Your task to perform on an android device: see creations saved in the google photos Image 0: 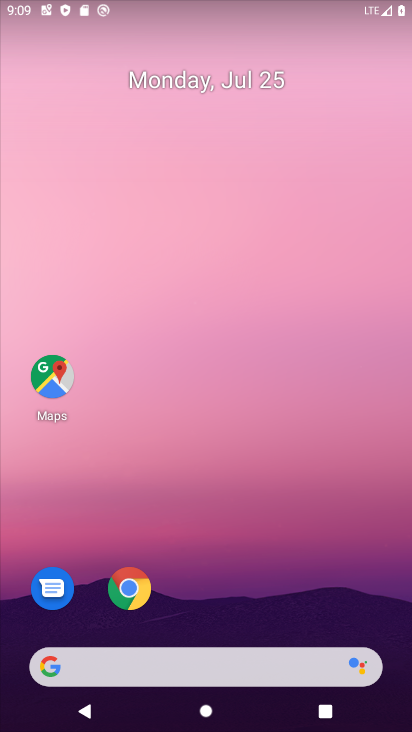
Step 0: drag from (246, 668) to (249, 188)
Your task to perform on an android device: see creations saved in the google photos Image 1: 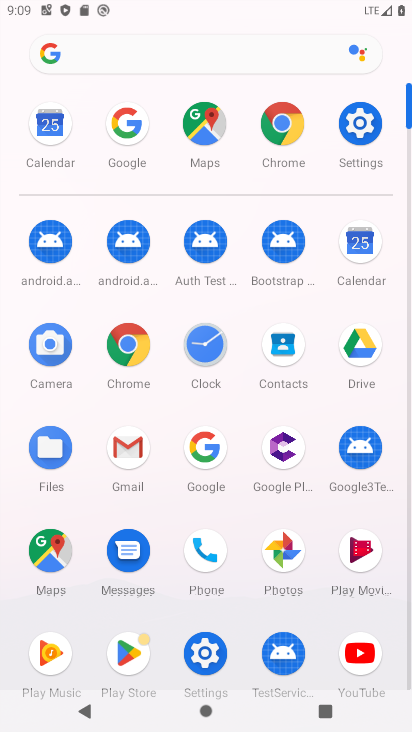
Step 1: click (295, 538)
Your task to perform on an android device: see creations saved in the google photos Image 2: 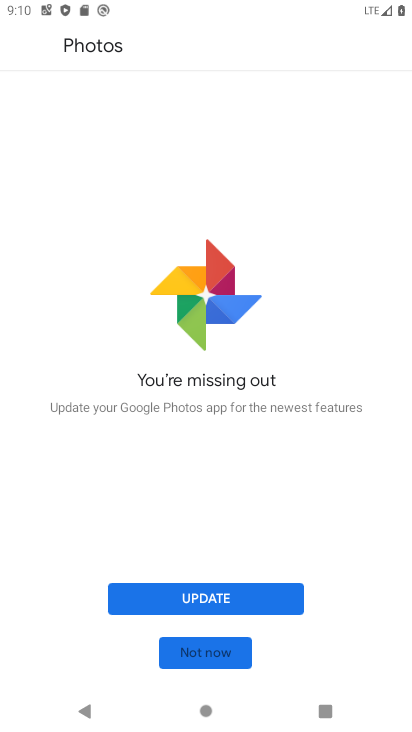
Step 2: click (196, 646)
Your task to perform on an android device: see creations saved in the google photos Image 3: 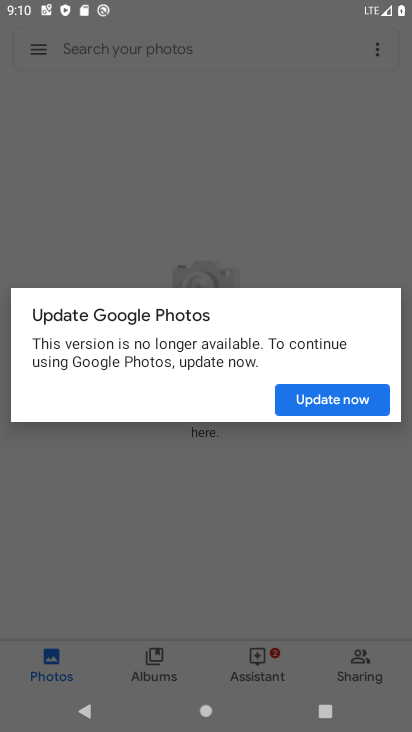
Step 3: click (333, 408)
Your task to perform on an android device: see creations saved in the google photos Image 4: 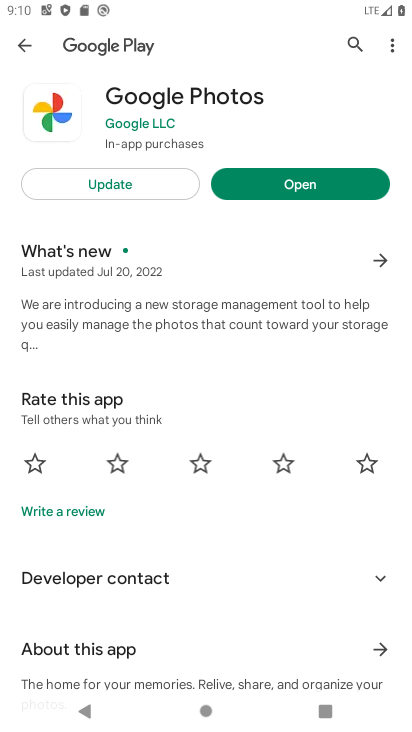
Step 4: click (99, 191)
Your task to perform on an android device: see creations saved in the google photos Image 5: 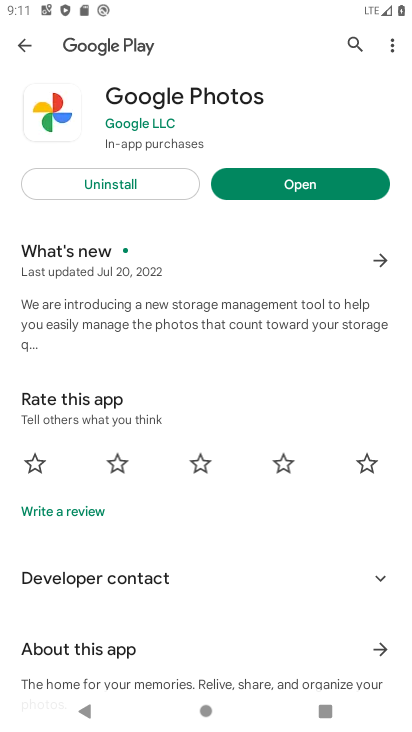
Step 5: click (263, 182)
Your task to perform on an android device: see creations saved in the google photos Image 6: 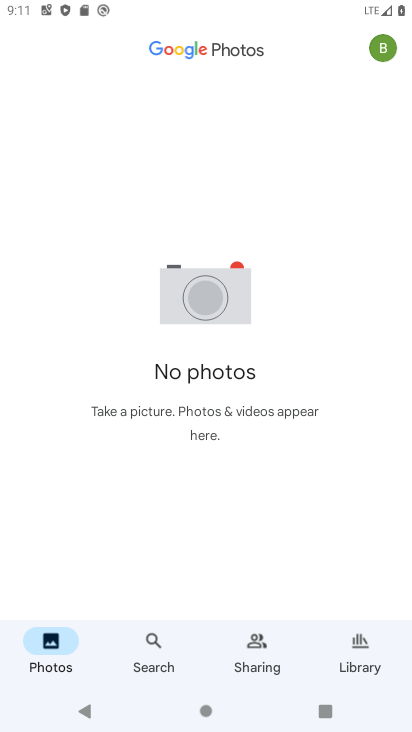
Step 6: click (357, 656)
Your task to perform on an android device: see creations saved in the google photos Image 7: 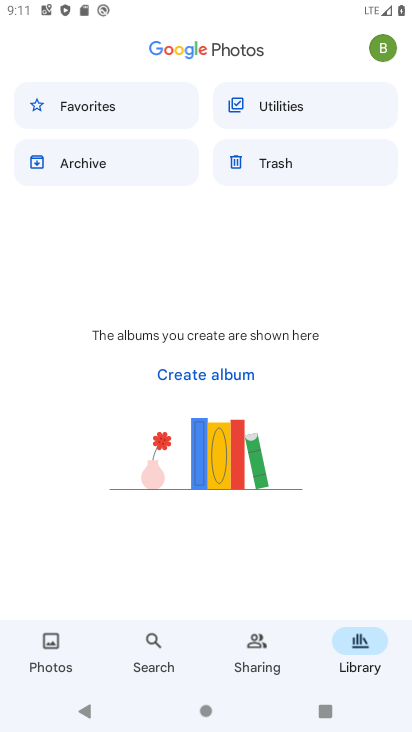
Step 7: click (115, 110)
Your task to perform on an android device: see creations saved in the google photos Image 8: 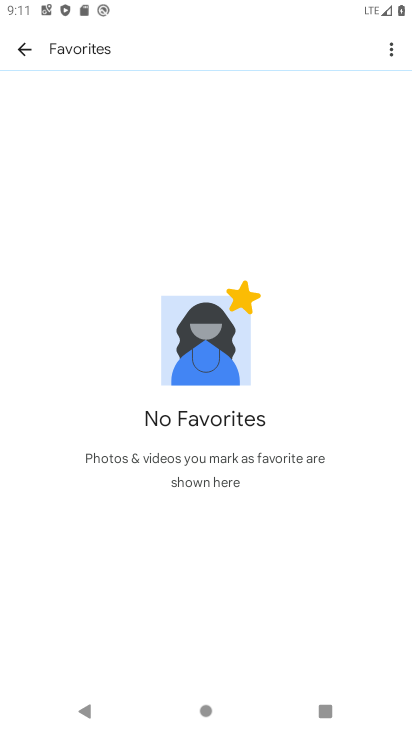
Step 8: task complete